Your task to perform on an android device: open wifi settings Image 0: 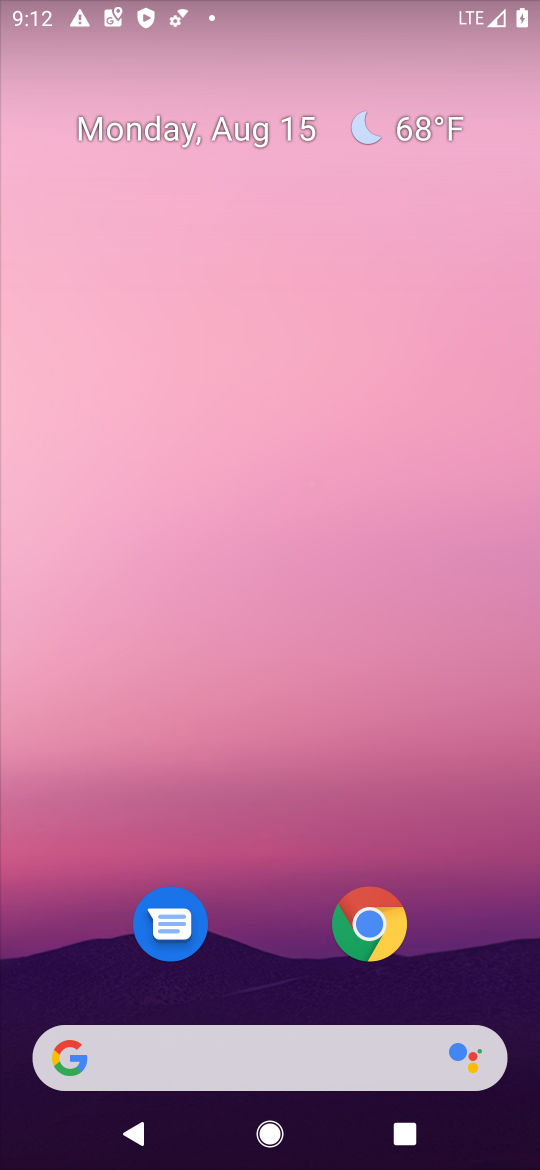
Step 0: drag from (481, 912) to (451, 168)
Your task to perform on an android device: open wifi settings Image 1: 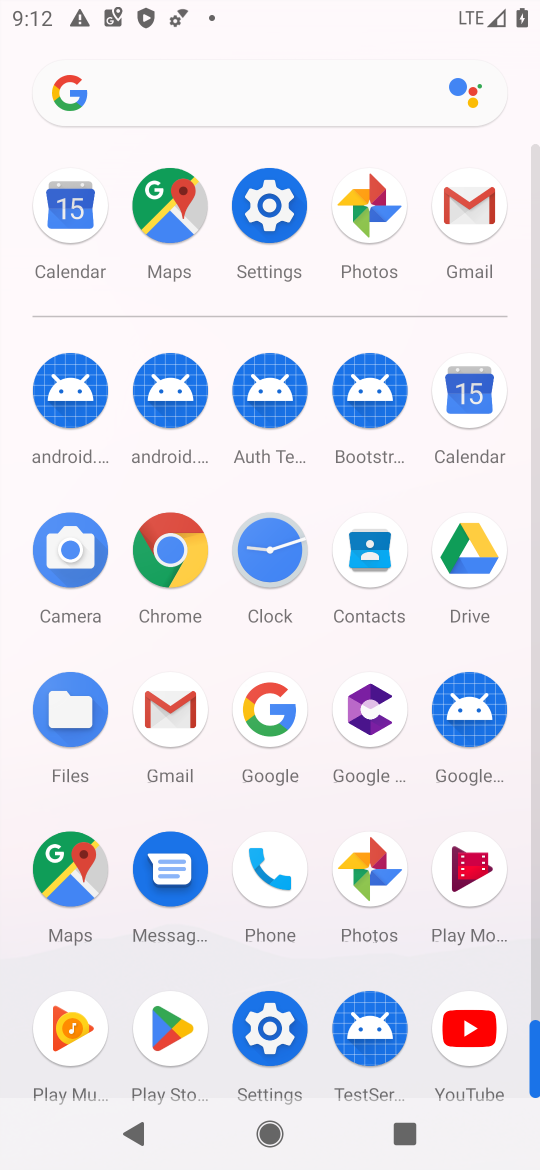
Step 1: click (271, 1033)
Your task to perform on an android device: open wifi settings Image 2: 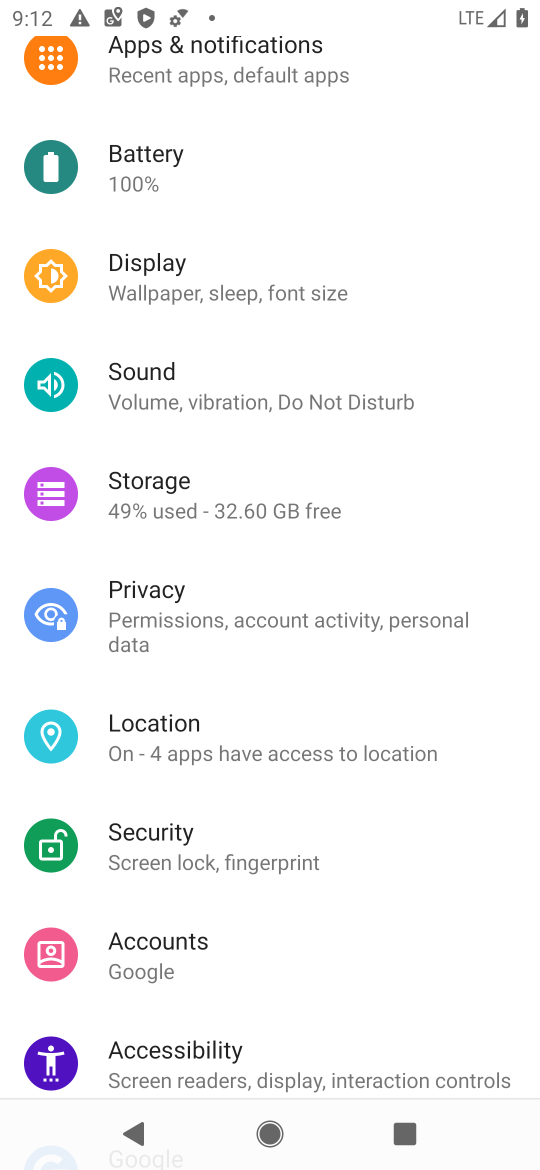
Step 2: drag from (406, 280) to (433, 813)
Your task to perform on an android device: open wifi settings Image 3: 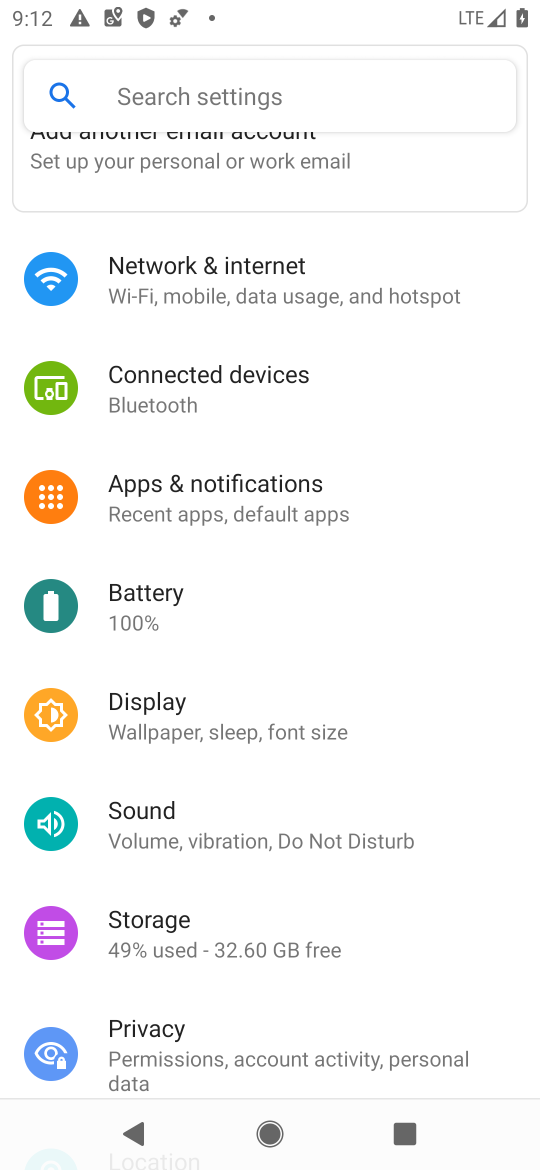
Step 3: click (181, 285)
Your task to perform on an android device: open wifi settings Image 4: 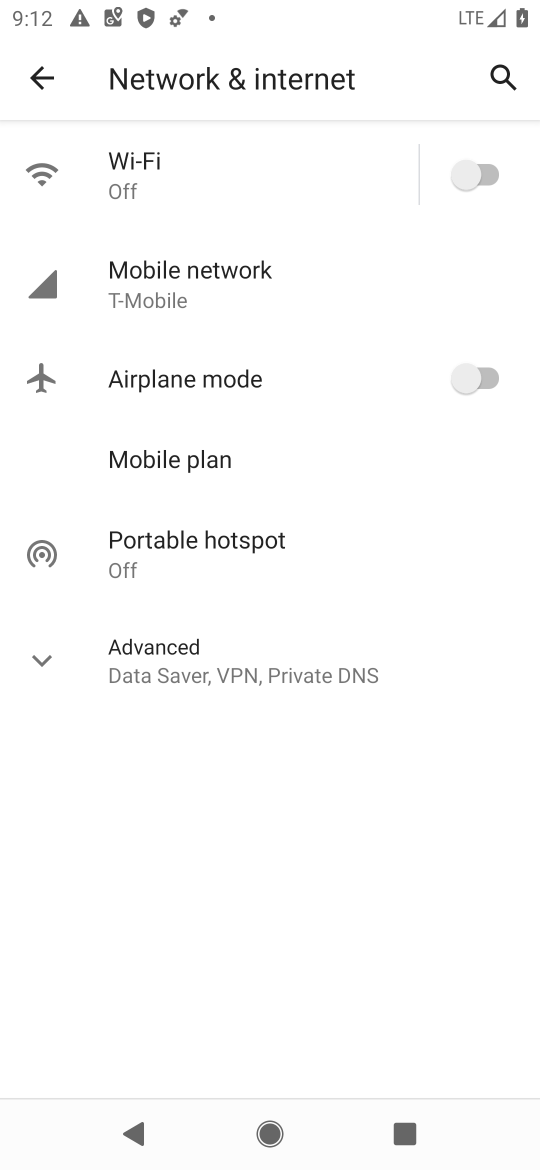
Step 4: click (146, 174)
Your task to perform on an android device: open wifi settings Image 5: 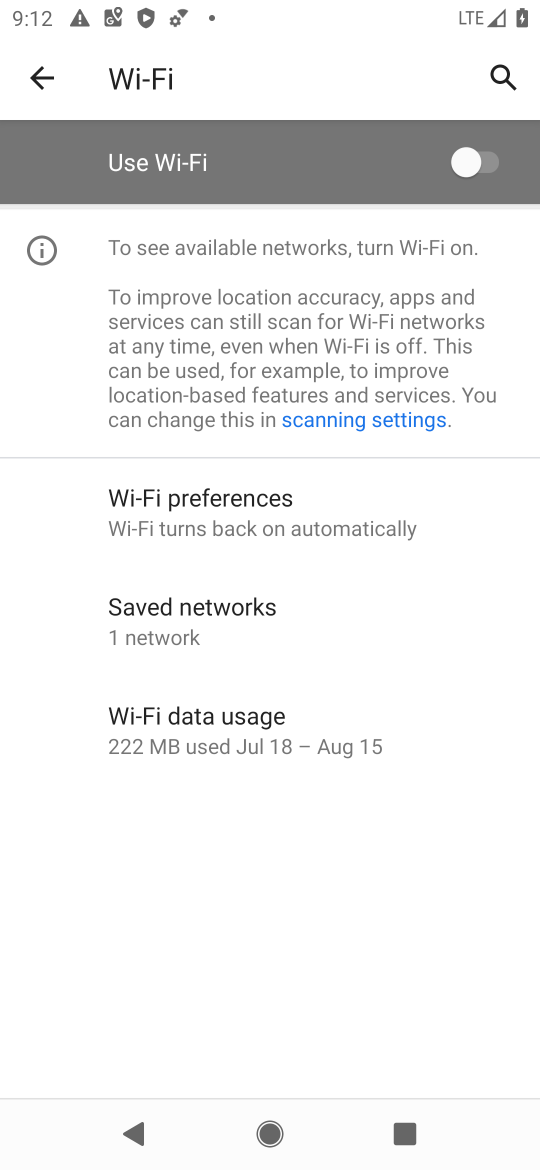
Step 5: task complete